Your task to perform on an android device: all mails in gmail Image 0: 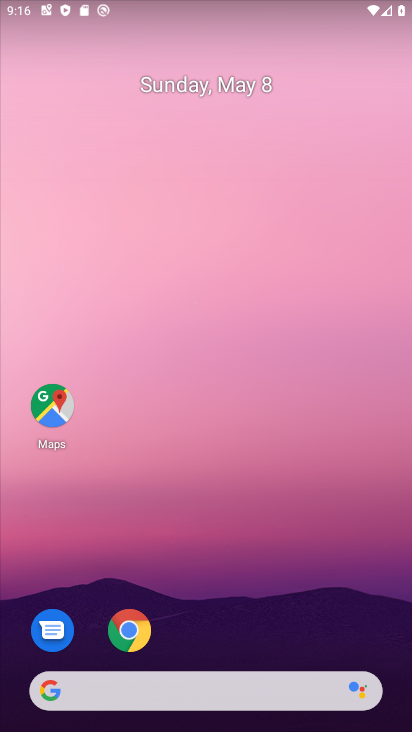
Step 0: drag from (162, 696) to (311, 265)
Your task to perform on an android device: all mails in gmail Image 1: 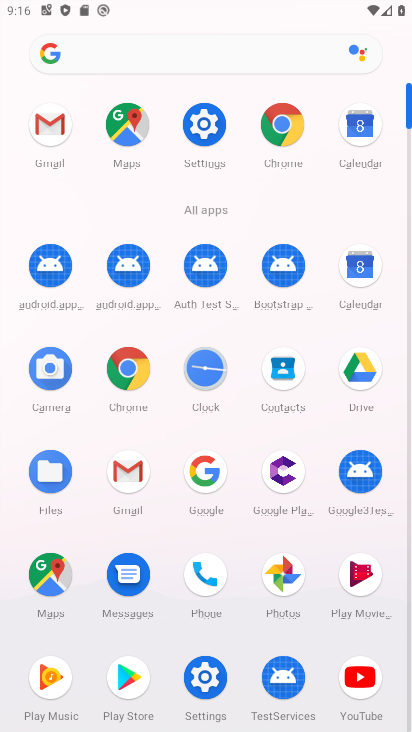
Step 1: click (43, 131)
Your task to perform on an android device: all mails in gmail Image 2: 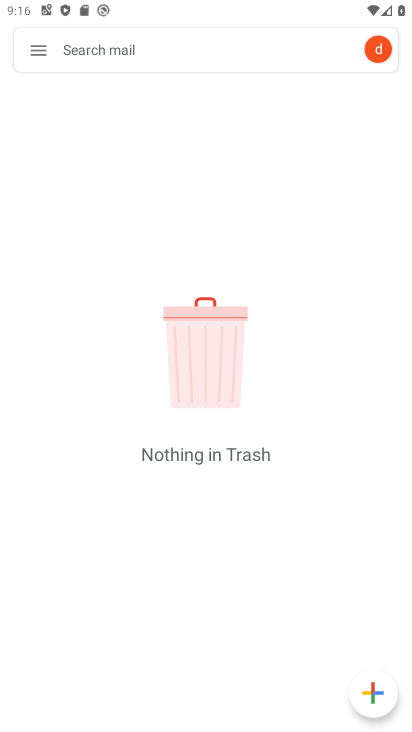
Step 2: click (39, 47)
Your task to perform on an android device: all mails in gmail Image 3: 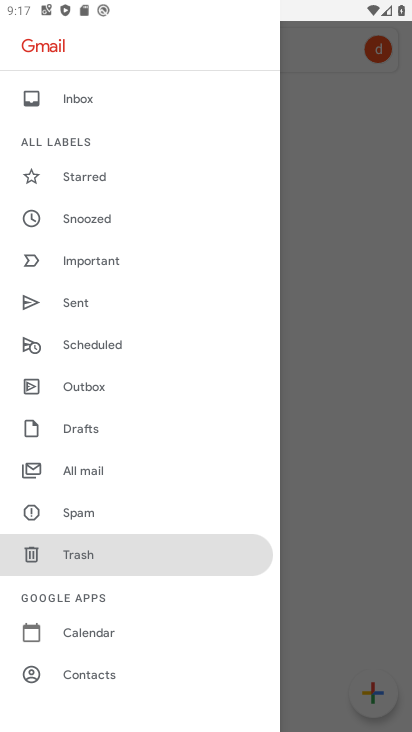
Step 3: click (95, 468)
Your task to perform on an android device: all mails in gmail Image 4: 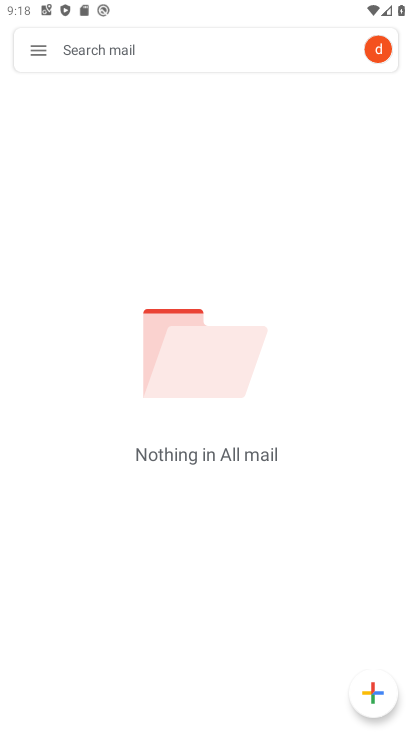
Step 4: task complete